Your task to perform on an android device: check google app version Image 0: 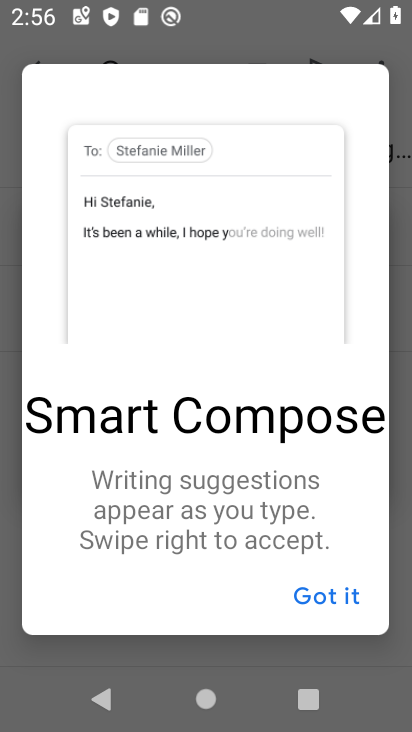
Step 0: press home button
Your task to perform on an android device: check google app version Image 1: 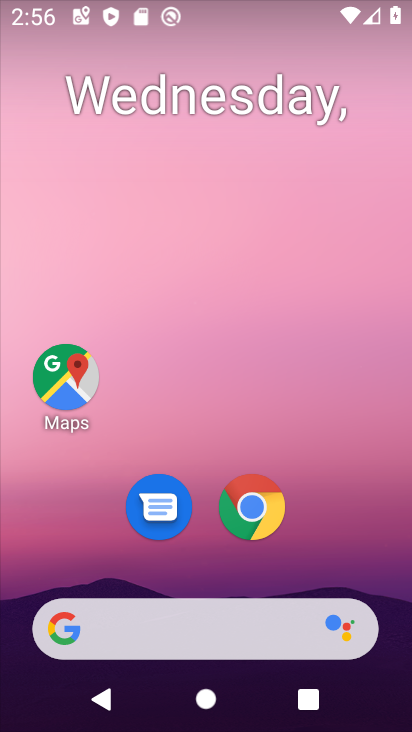
Step 1: click (269, 610)
Your task to perform on an android device: check google app version Image 2: 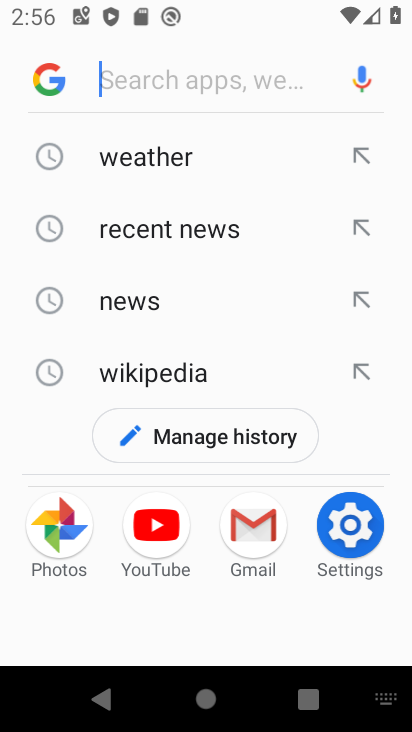
Step 2: click (47, 100)
Your task to perform on an android device: check google app version Image 3: 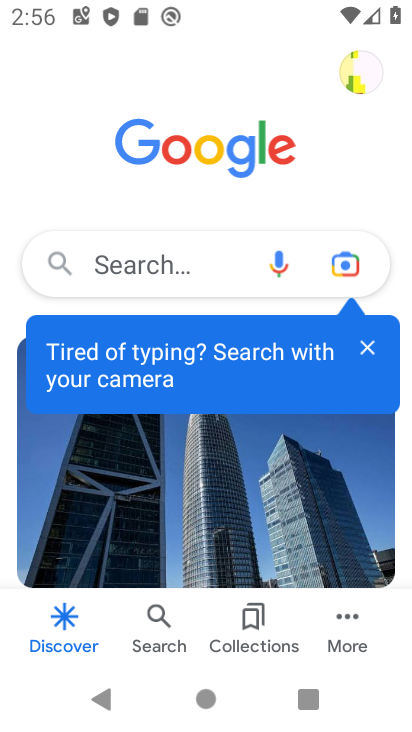
Step 3: click (338, 89)
Your task to perform on an android device: check google app version Image 4: 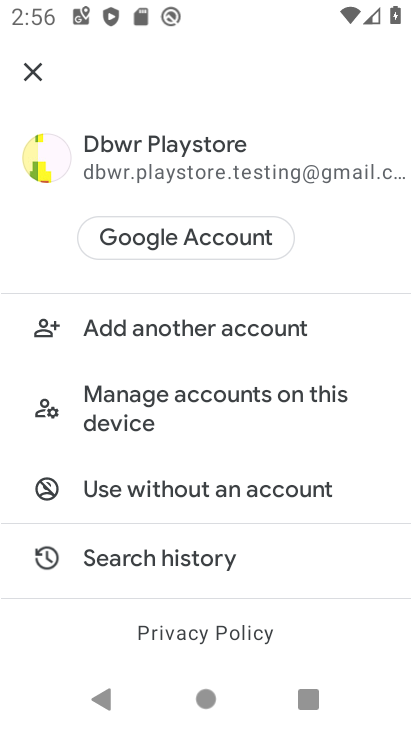
Step 4: drag from (296, 588) to (288, 198)
Your task to perform on an android device: check google app version Image 5: 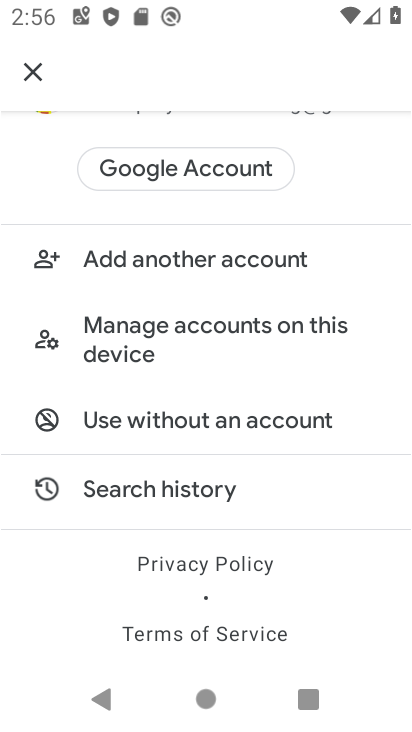
Step 5: drag from (352, 278) to (334, 538)
Your task to perform on an android device: check google app version Image 6: 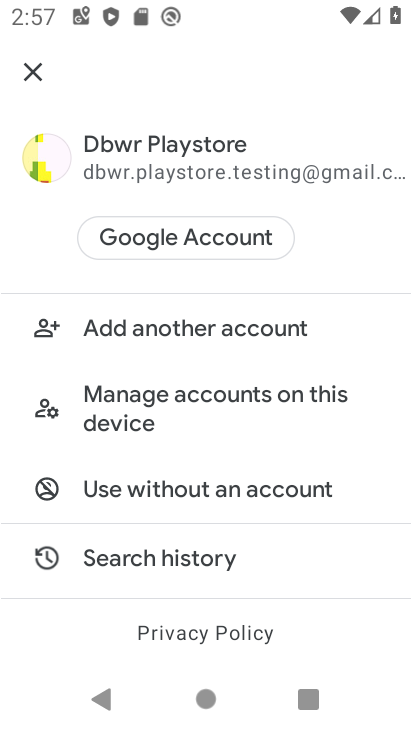
Step 6: press home button
Your task to perform on an android device: check google app version Image 7: 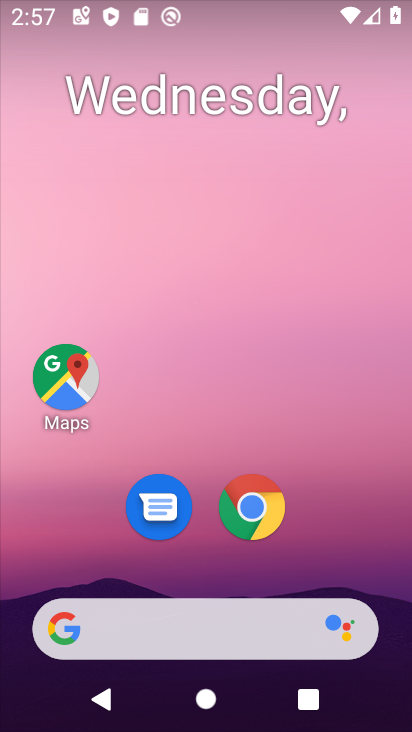
Step 7: drag from (322, 508) to (277, 127)
Your task to perform on an android device: check google app version Image 8: 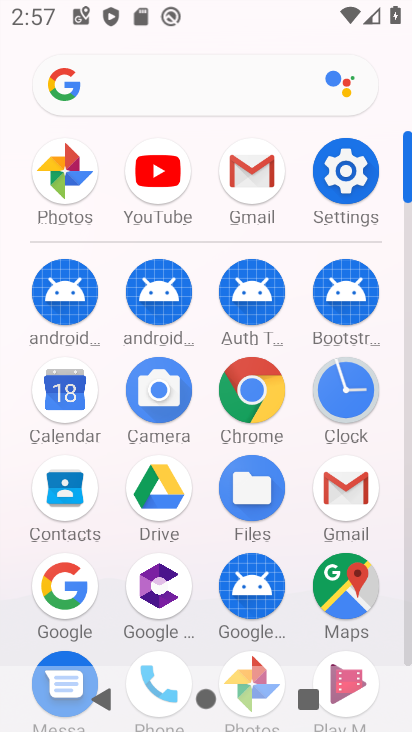
Step 8: click (50, 601)
Your task to perform on an android device: check google app version Image 9: 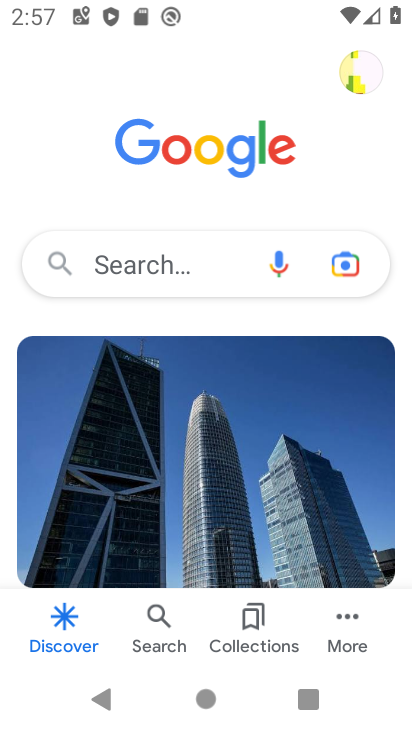
Step 9: click (335, 76)
Your task to perform on an android device: check google app version Image 10: 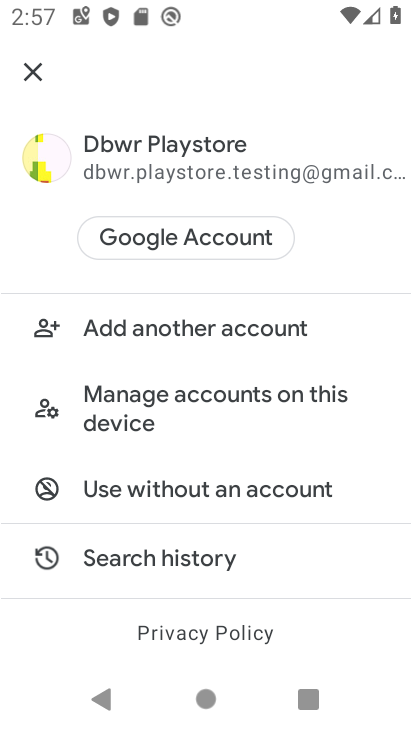
Step 10: drag from (248, 474) to (324, 149)
Your task to perform on an android device: check google app version Image 11: 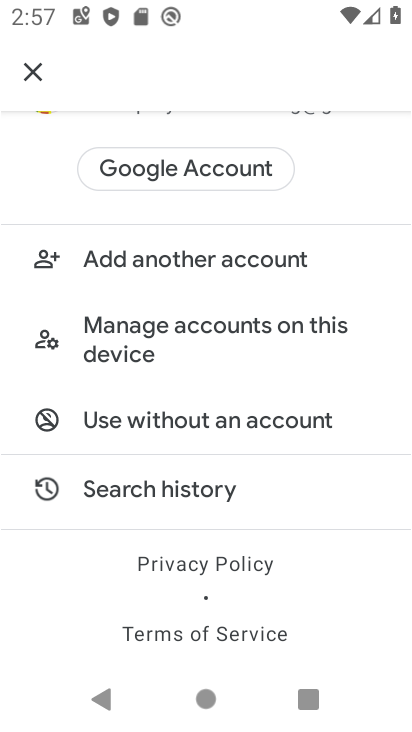
Step 11: drag from (264, 262) to (235, 473)
Your task to perform on an android device: check google app version Image 12: 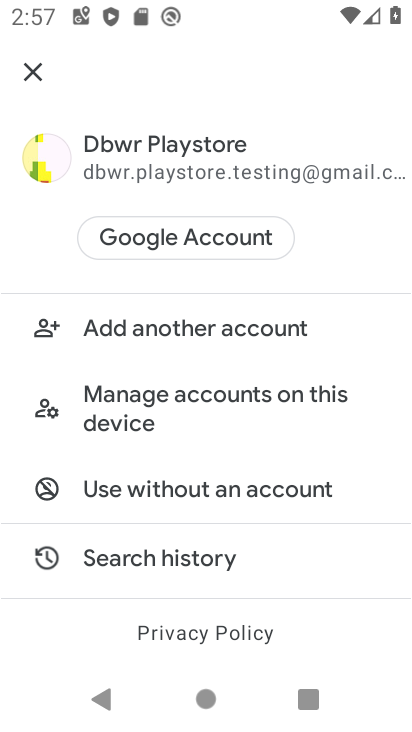
Step 12: click (273, 169)
Your task to perform on an android device: check google app version Image 13: 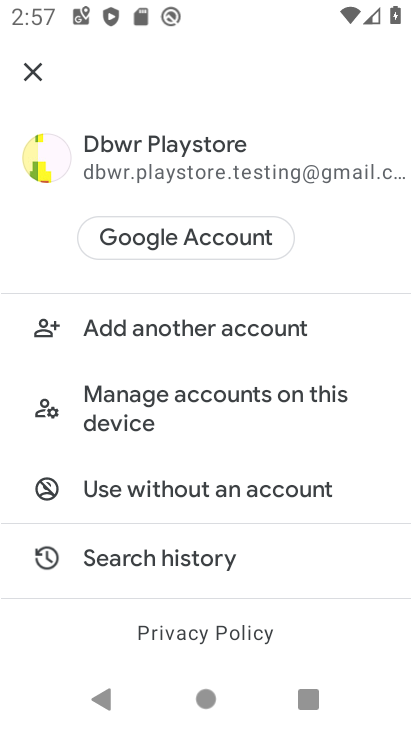
Step 13: click (269, 179)
Your task to perform on an android device: check google app version Image 14: 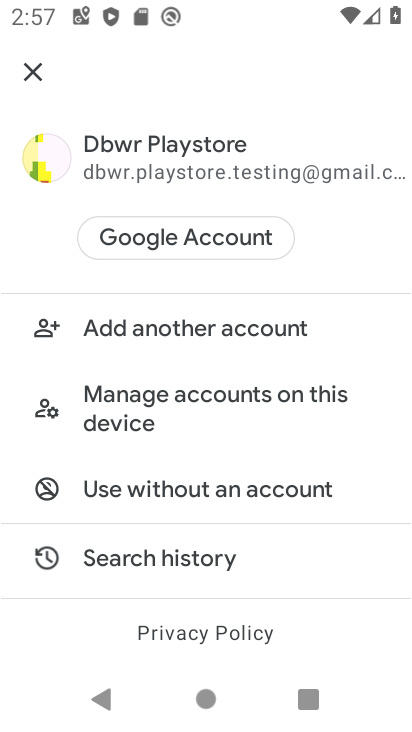
Step 14: click (12, 164)
Your task to perform on an android device: check google app version Image 15: 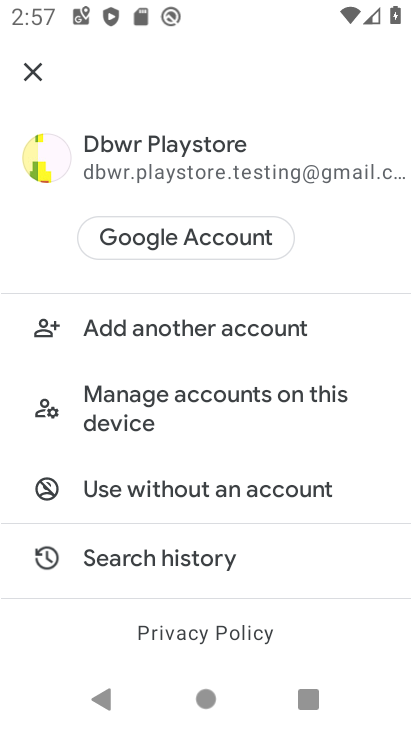
Step 15: click (146, 242)
Your task to perform on an android device: check google app version Image 16: 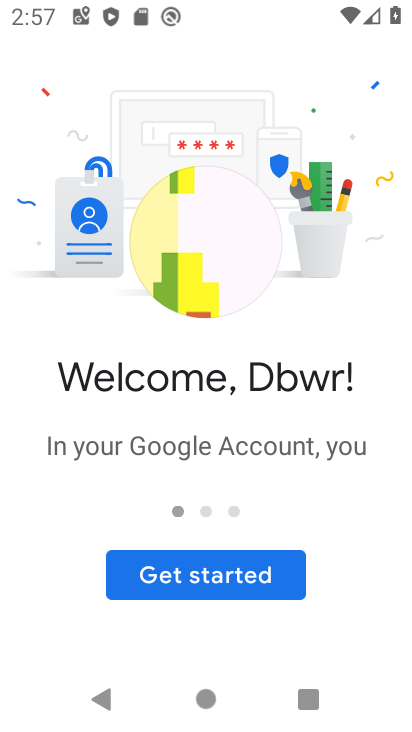
Step 16: task complete